Your task to perform on an android device: turn off sleep mode Image 0: 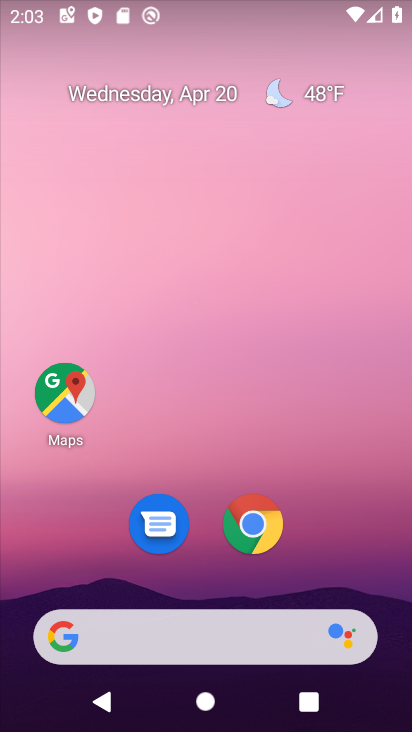
Step 0: drag from (332, 537) to (331, 70)
Your task to perform on an android device: turn off sleep mode Image 1: 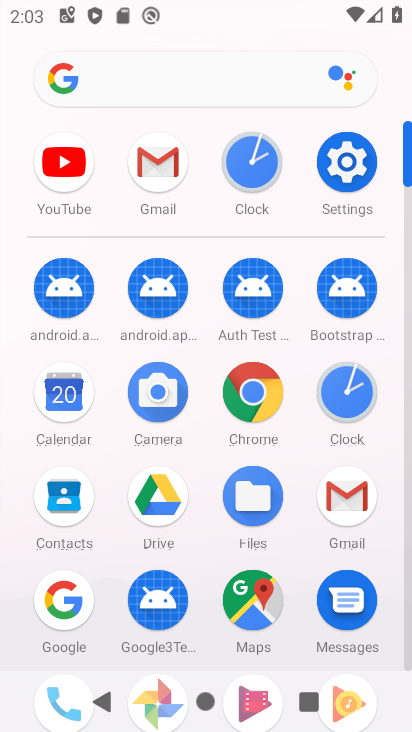
Step 1: click (350, 165)
Your task to perform on an android device: turn off sleep mode Image 2: 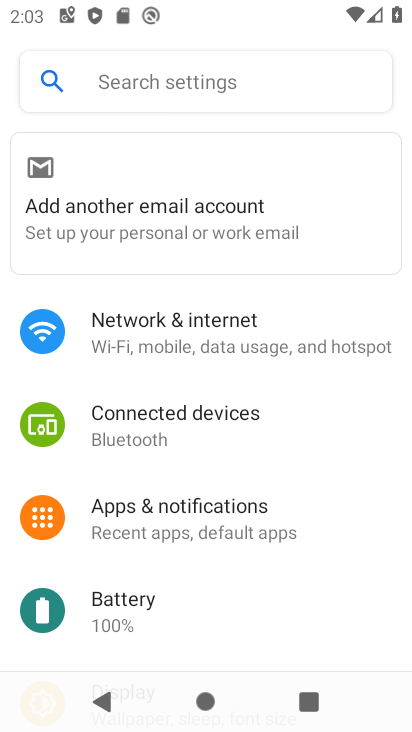
Step 2: drag from (236, 578) to (219, 156)
Your task to perform on an android device: turn off sleep mode Image 3: 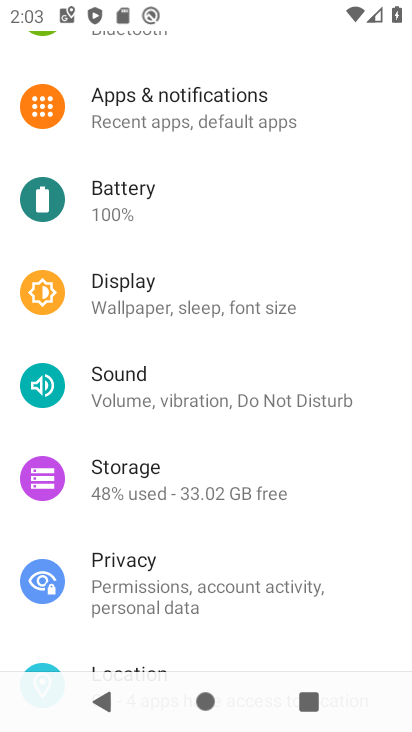
Step 3: click (254, 301)
Your task to perform on an android device: turn off sleep mode Image 4: 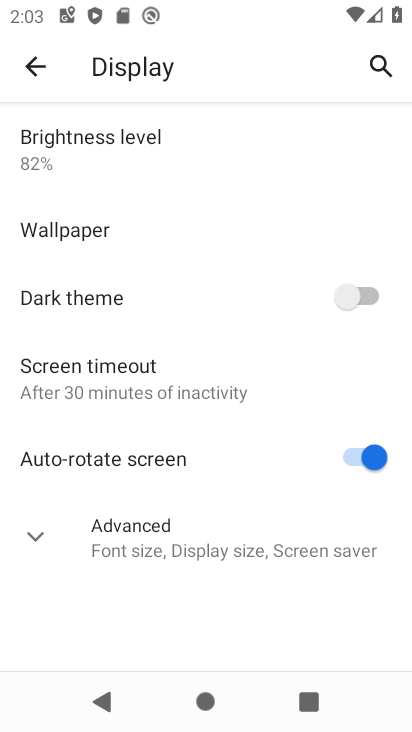
Step 4: click (32, 528)
Your task to perform on an android device: turn off sleep mode Image 5: 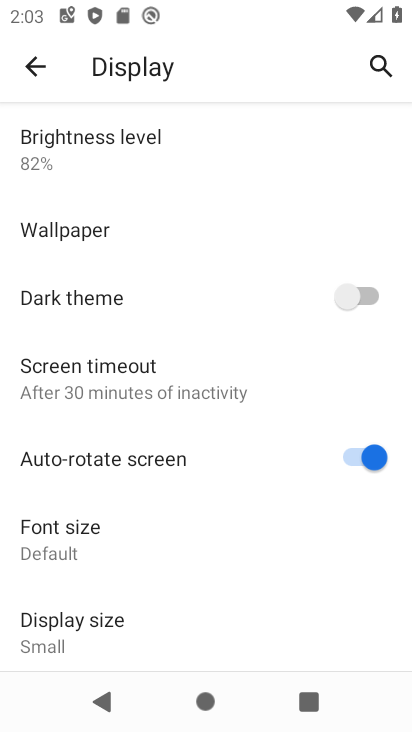
Step 5: task complete